Your task to perform on an android device: turn off translation in the chrome app Image 0: 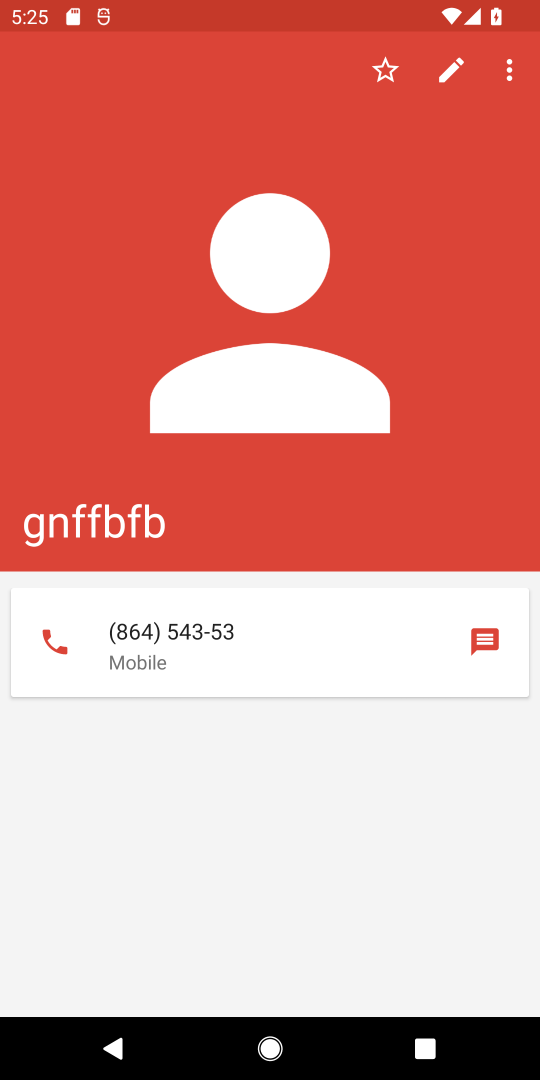
Step 0: press home button
Your task to perform on an android device: turn off translation in the chrome app Image 1: 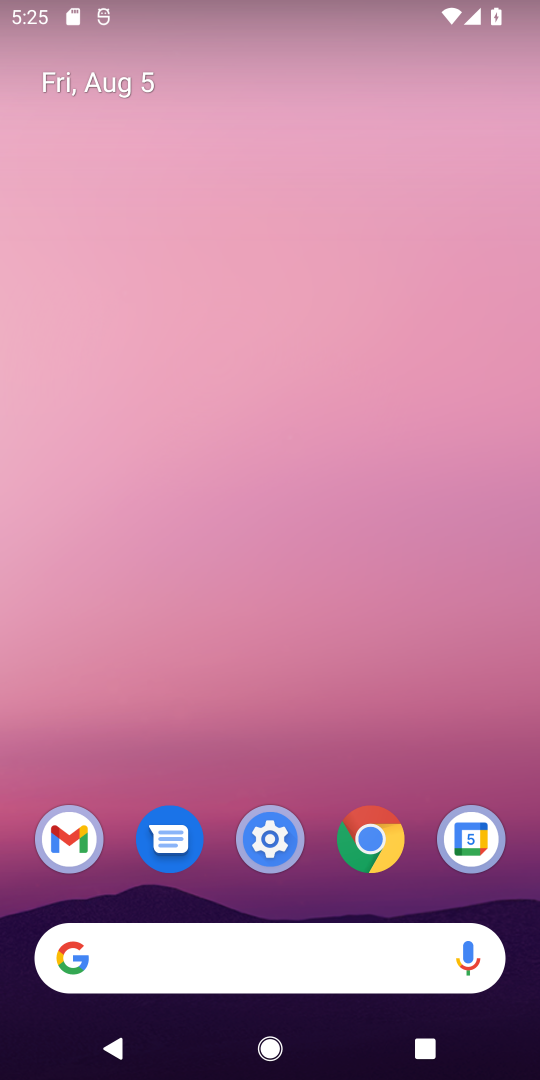
Step 1: click (365, 824)
Your task to perform on an android device: turn off translation in the chrome app Image 2: 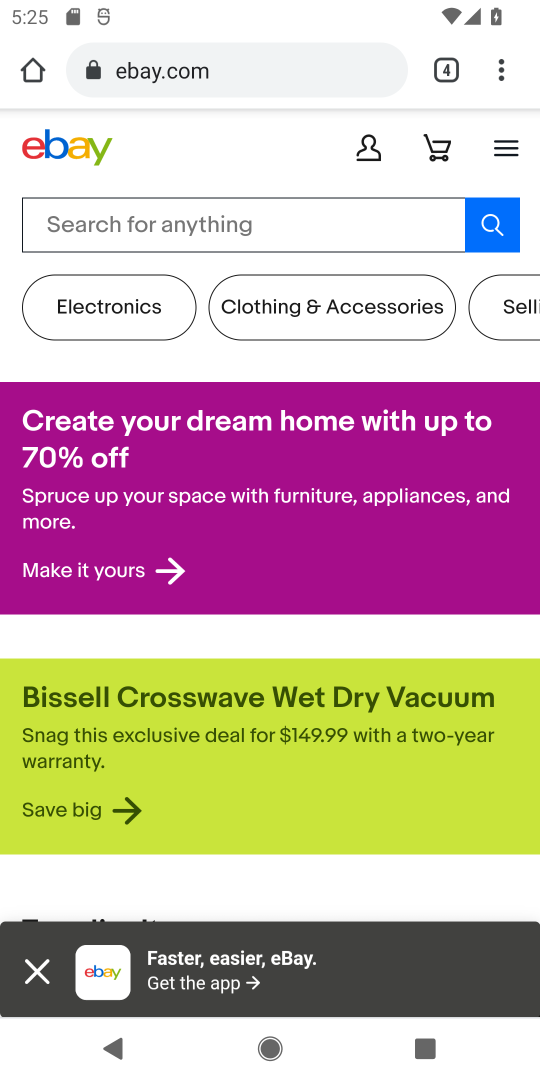
Step 2: drag from (499, 76) to (274, 843)
Your task to perform on an android device: turn off translation in the chrome app Image 3: 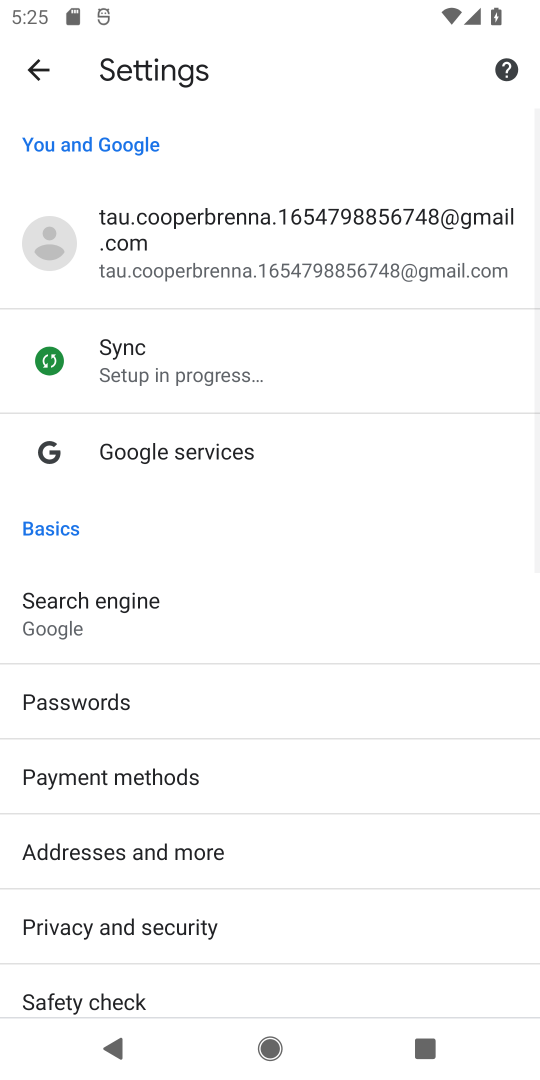
Step 3: drag from (244, 904) to (248, 271)
Your task to perform on an android device: turn off translation in the chrome app Image 4: 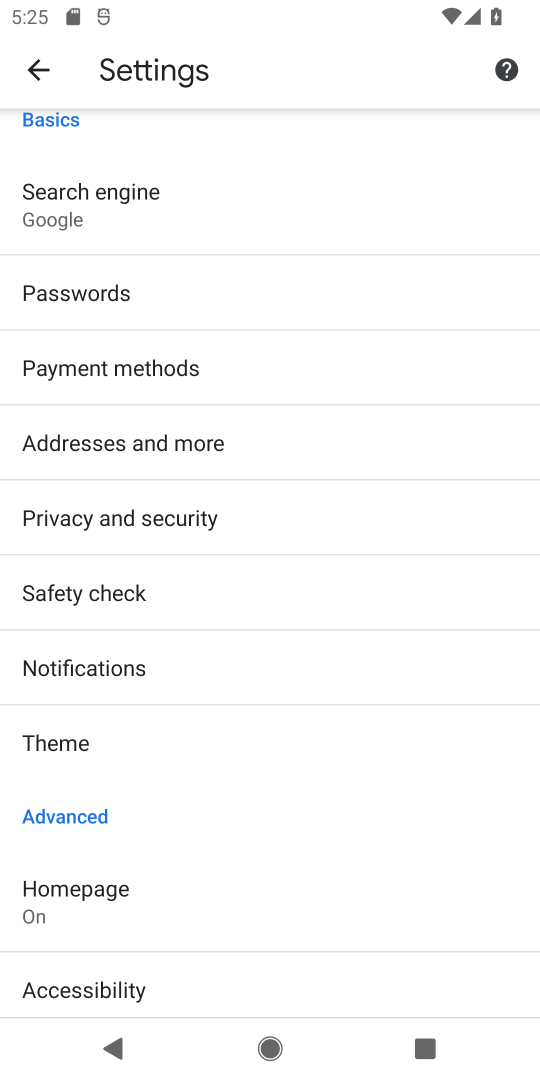
Step 4: drag from (197, 858) to (212, 319)
Your task to perform on an android device: turn off translation in the chrome app Image 5: 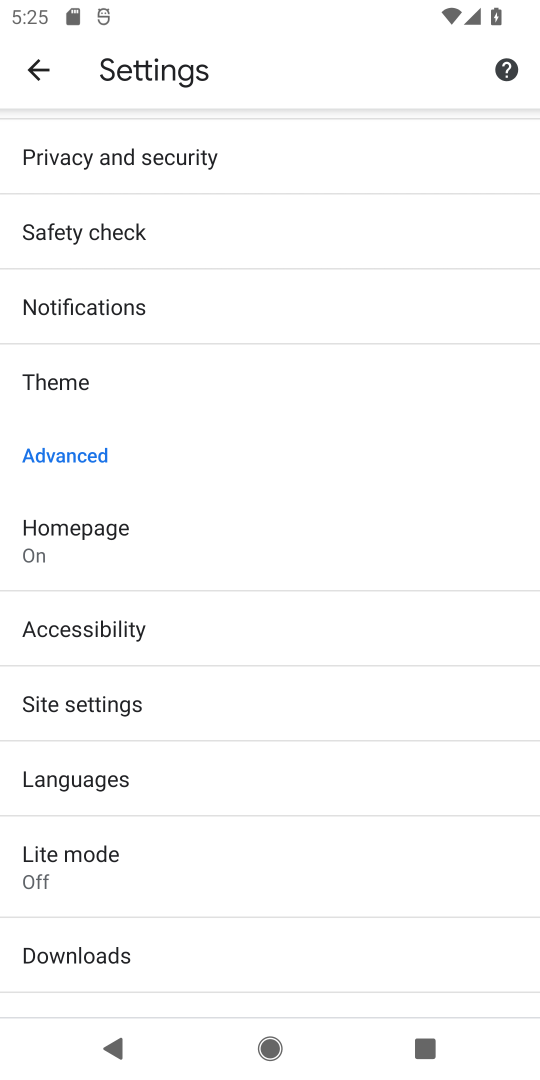
Step 5: click (114, 767)
Your task to perform on an android device: turn off translation in the chrome app Image 6: 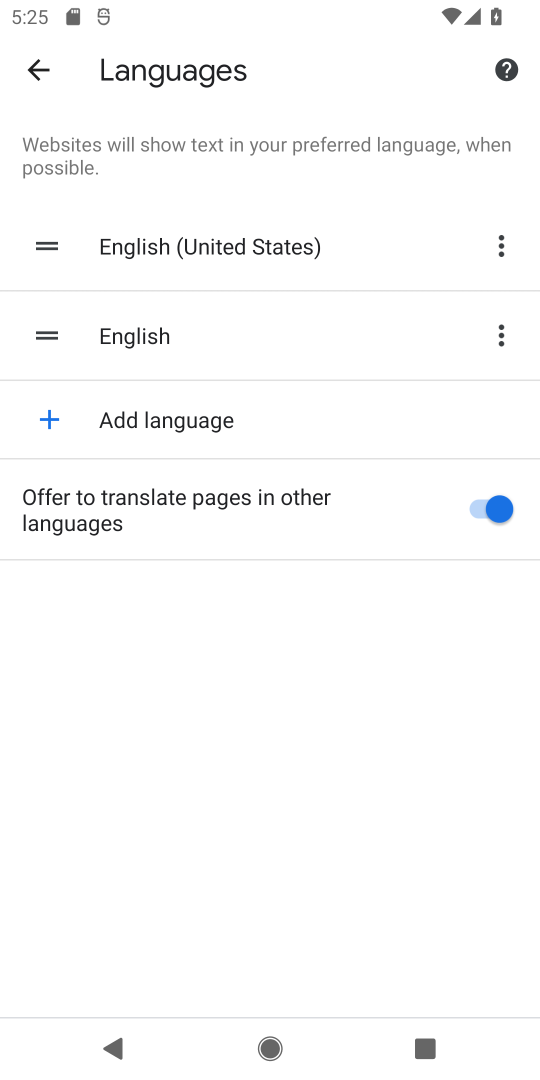
Step 6: click (469, 502)
Your task to perform on an android device: turn off translation in the chrome app Image 7: 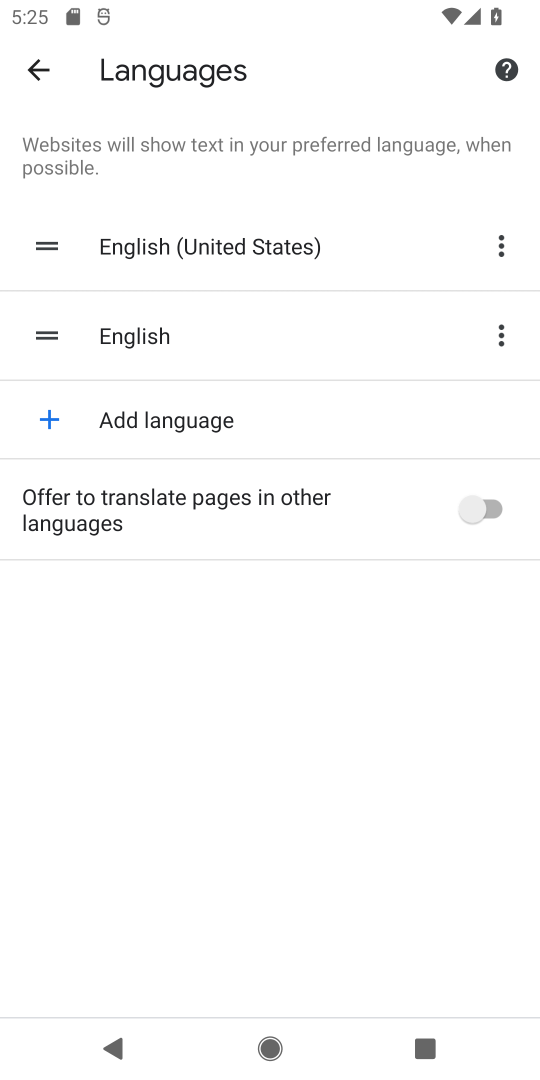
Step 7: task complete